Your task to perform on an android device: Check the news Image 0: 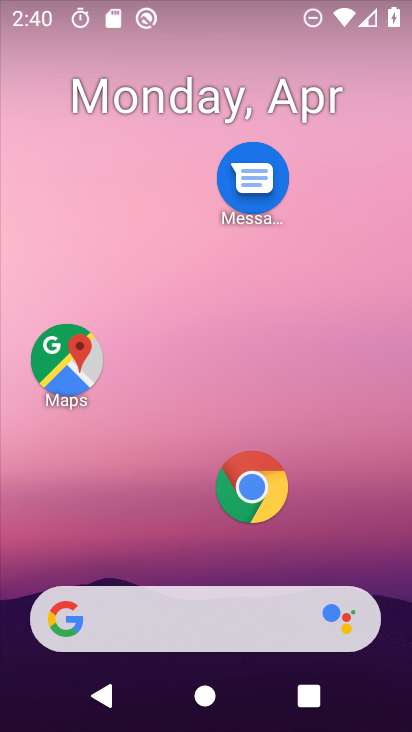
Step 0: drag from (116, 590) to (123, 85)
Your task to perform on an android device: Check the news Image 1: 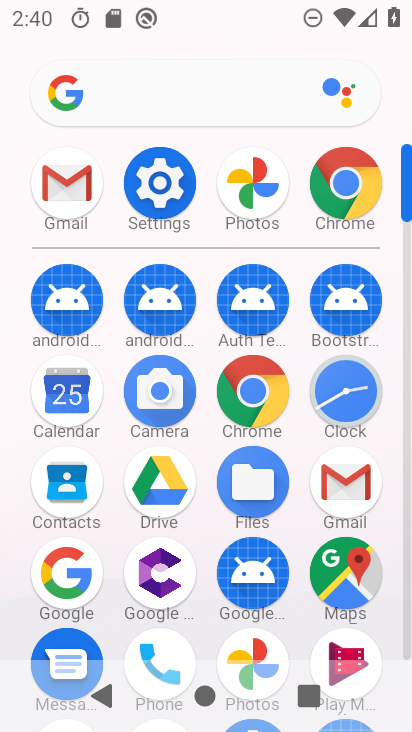
Step 1: click (253, 394)
Your task to perform on an android device: Check the news Image 2: 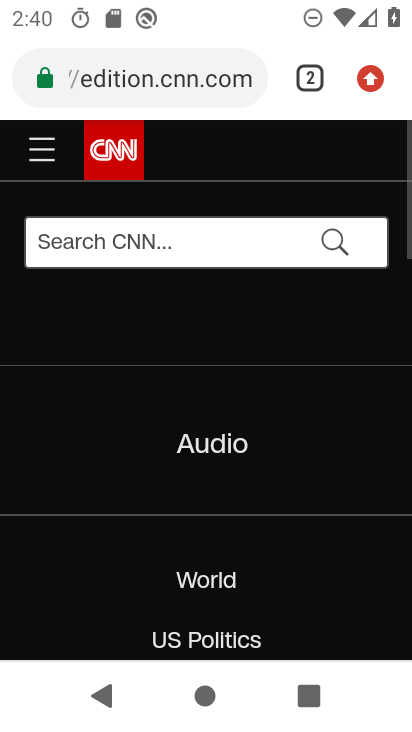
Step 2: click (194, 72)
Your task to perform on an android device: Check the news Image 3: 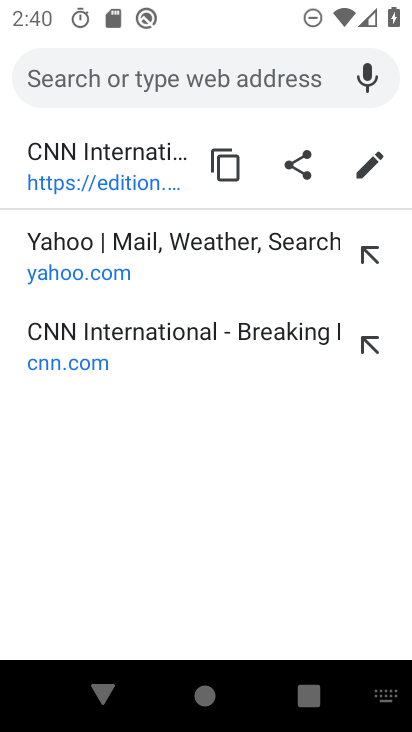
Step 3: type "check the news"
Your task to perform on an android device: Check the news Image 4: 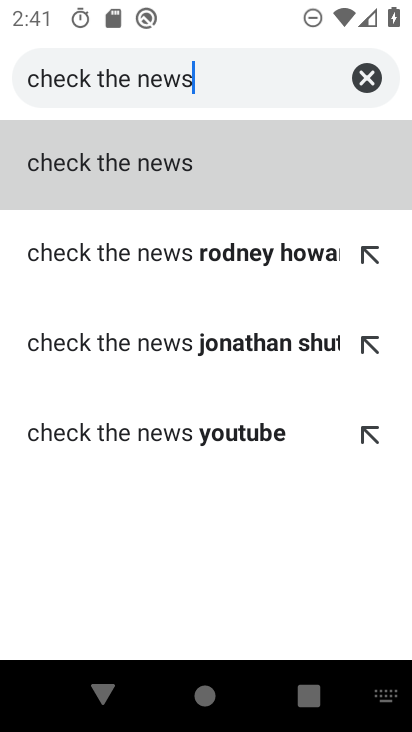
Step 4: click (217, 170)
Your task to perform on an android device: Check the news Image 5: 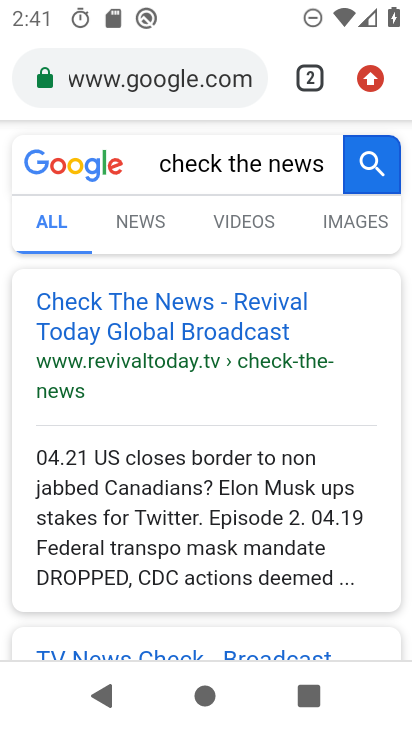
Step 5: task complete